Your task to perform on an android device: Open display settings Image 0: 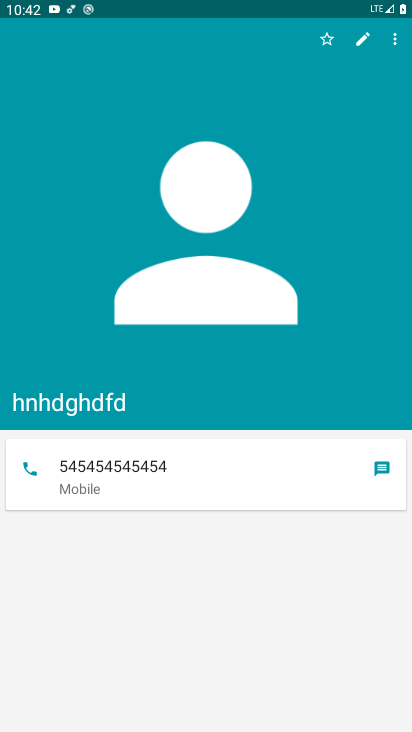
Step 0: press home button
Your task to perform on an android device: Open display settings Image 1: 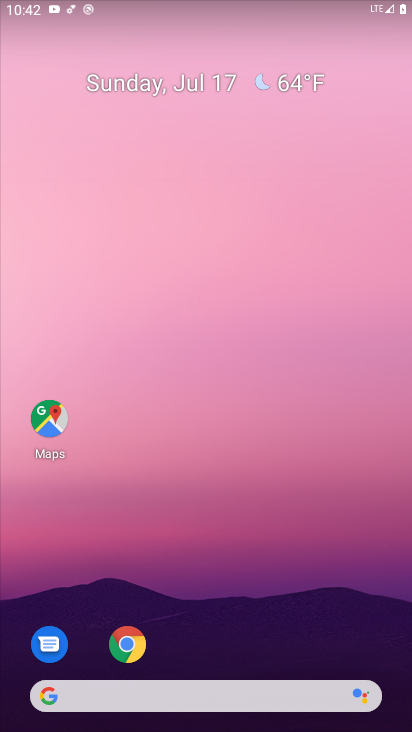
Step 1: drag from (201, 610) to (230, 13)
Your task to perform on an android device: Open display settings Image 2: 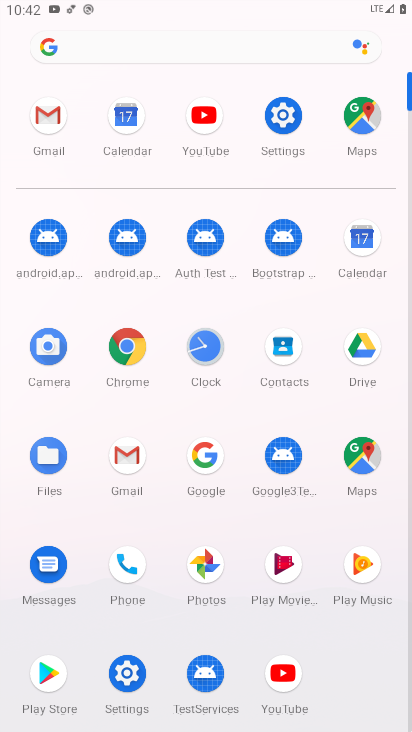
Step 2: click (296, 120)
Your task to perform on an android device: Open display settings Image 3: 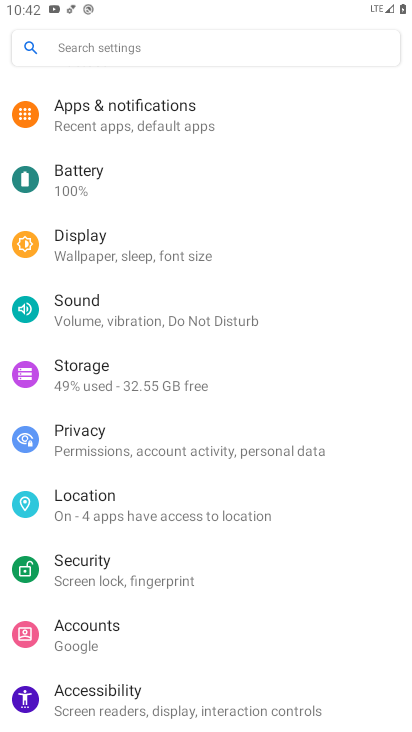
Step 3: click (123, 243)
Your task to perform on an android device: Open display settings Image 4: 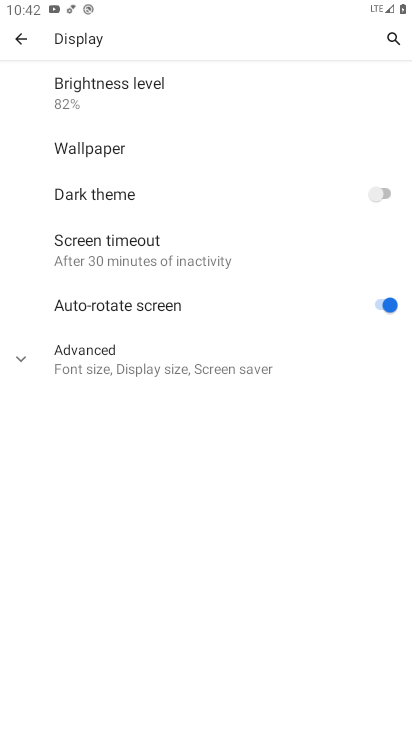
Step 4: task complete